Your task to perform on an android device: Open calendar and show me the first week of next month Image 0: 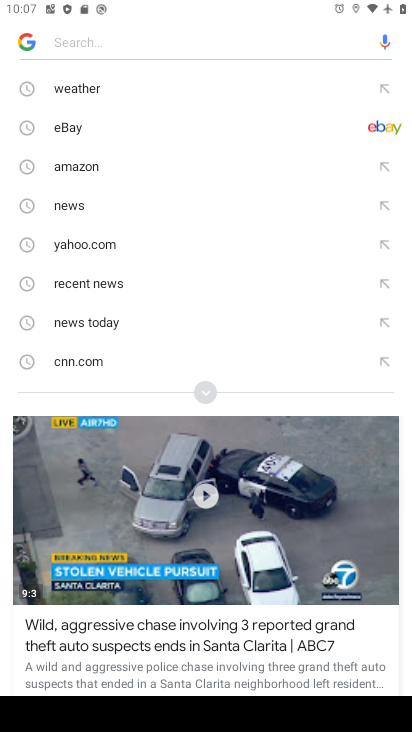
Step 0: press home button
Your task to perform on an android device: Open calendar and show me the first week of next month Image 1: 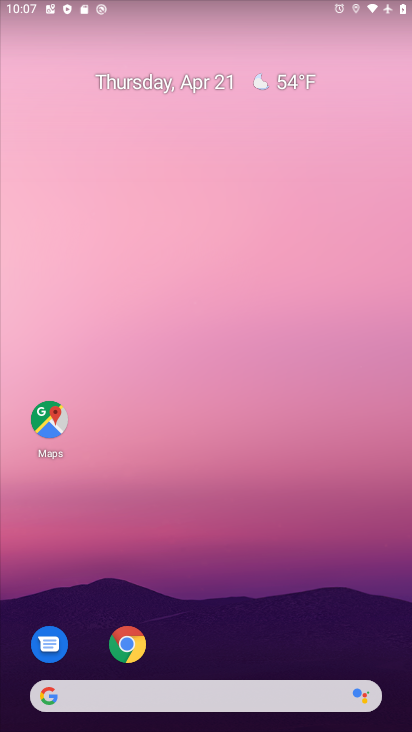
Step 1: drag from (257, 569) to (179, 73)
Your task to perform on an android device: Open calendar and show me the first week of next month Image 2: 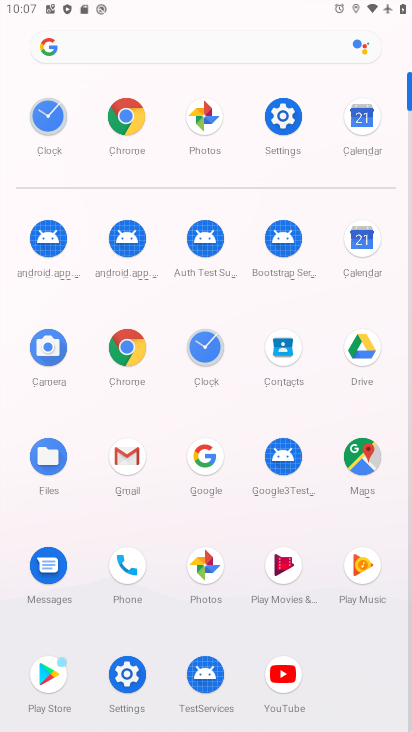
Step 2: click (358, 123)
Your task to perform on an android device: Open calendar and show me the first week of next month Image 3: 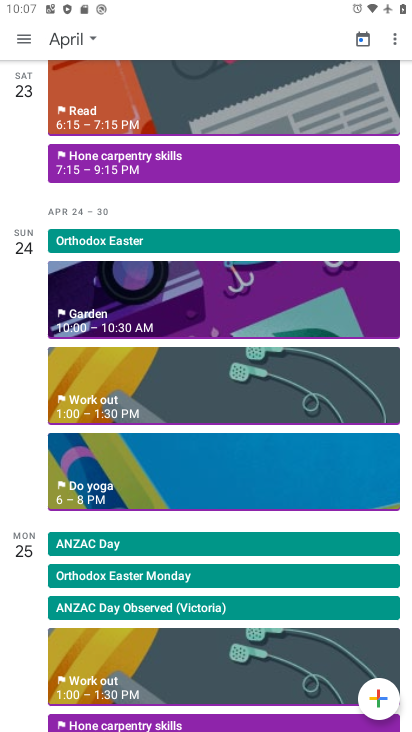
Step 3: click (55, 38)
Your task to perform on an android device: Open calendar and show me the first week of next month Image 4: 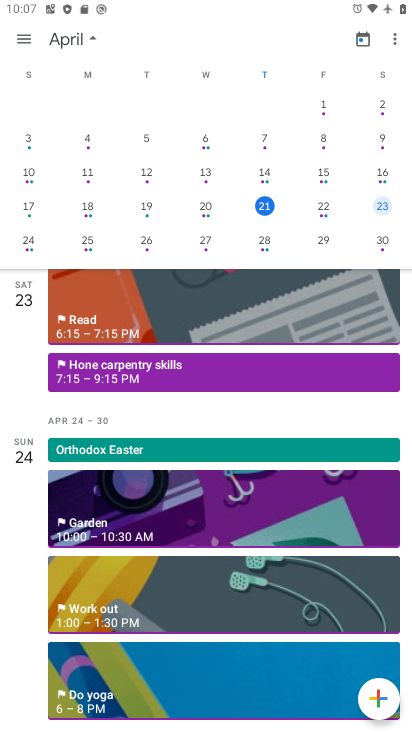
Step 4: drag from (369, 229) to (14, 215)
Your task to perform on an android device: Open calendar and show me the first week of next month Image 5: 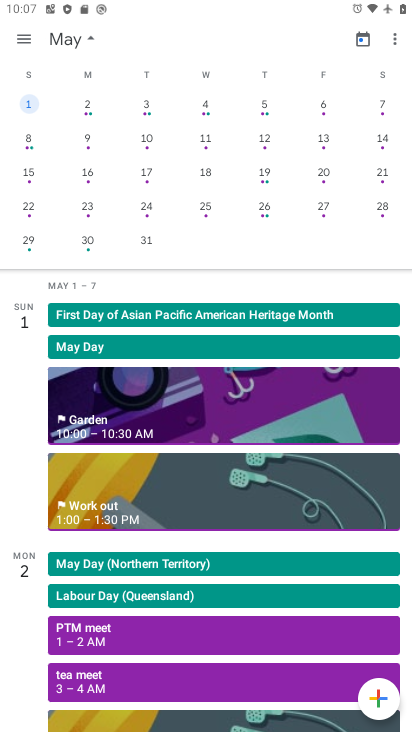
Step 5: click (24, 36)
Your task to perform on an android device: Open calendar and show me the first week of next month Image 6: 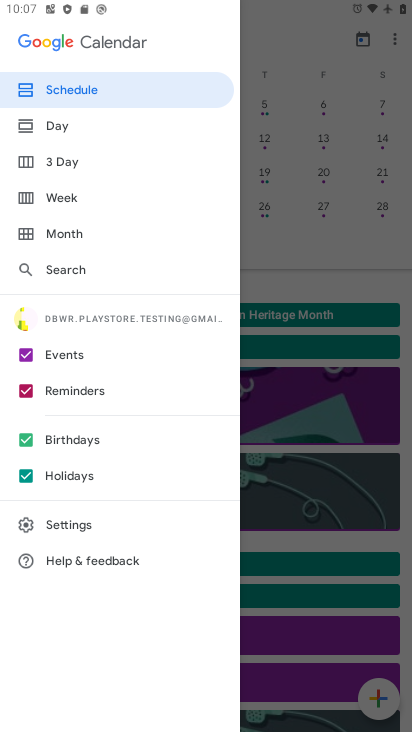
Step 6: click (51, 199)
Your task to perform on an android device: Open calendar and show me the first week of next month Image 7: 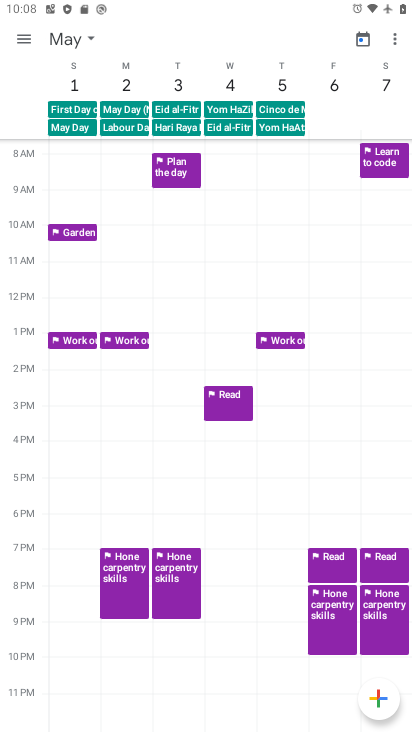
Step 7: task complete